Your task to perform on an android device: Is it going to rain this weekend? Image 0: 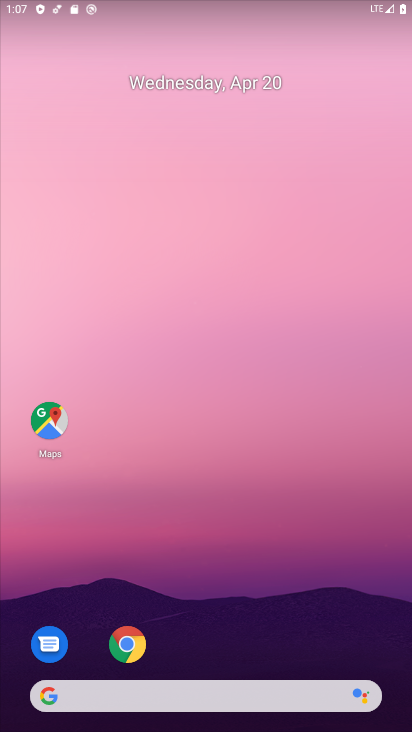
Step 0: drag from (247, 634) to (220, 103)
Your task to perform on an android device: Is it going to rain this weekend? Image 1: 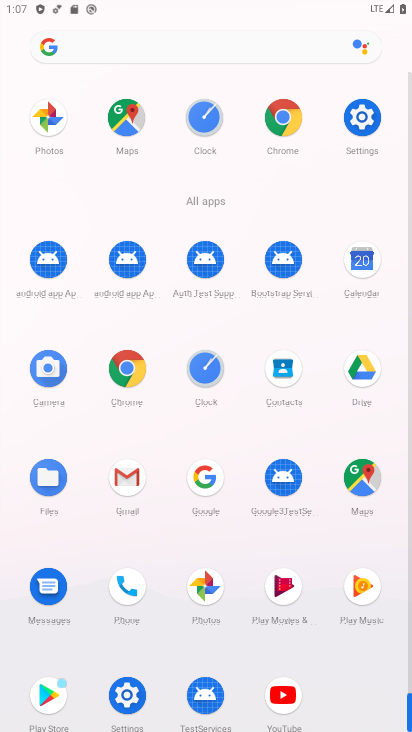
Step 1: click (139, 375)
Your task to perform on an android device: Is it going to rain this weekend? Image 2: 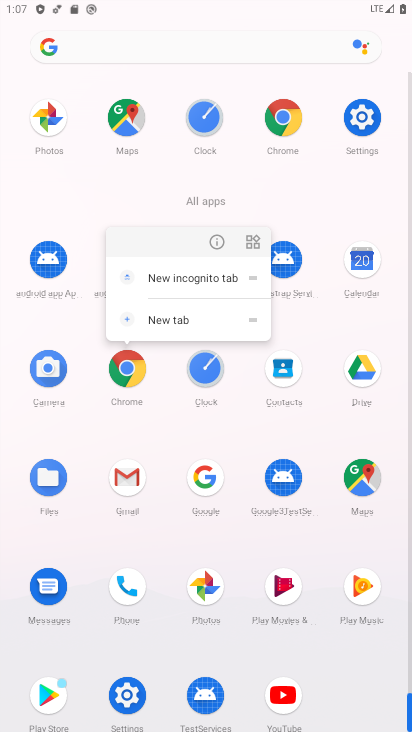
Step 2: click (128, 378)
Your task to perform on an android device: Is it going to rain this weekend? Image 3: 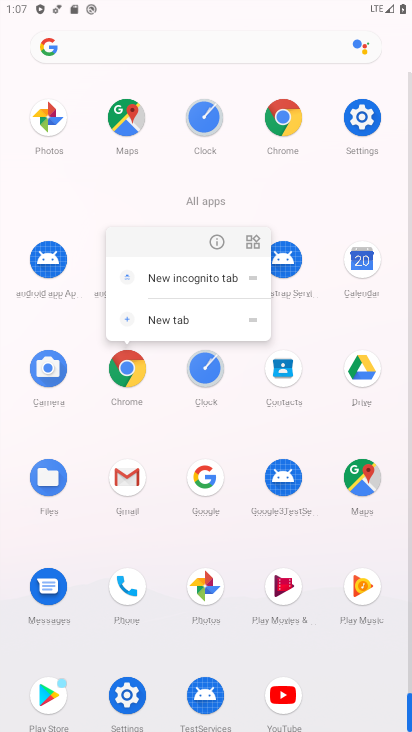
Step 3: click (128, 378)
Your task to perform on an android device: Is it going to rain this weekend? Image 4: 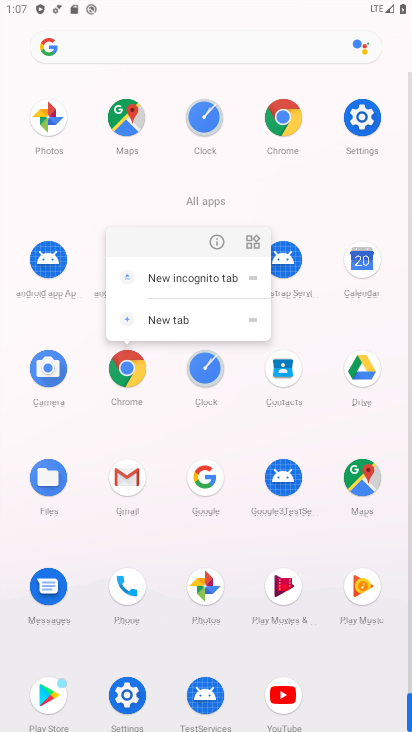
Step 4: click (128, 378)
Your task to perform on an android device: Is it going to rain this weekend? Image 5: 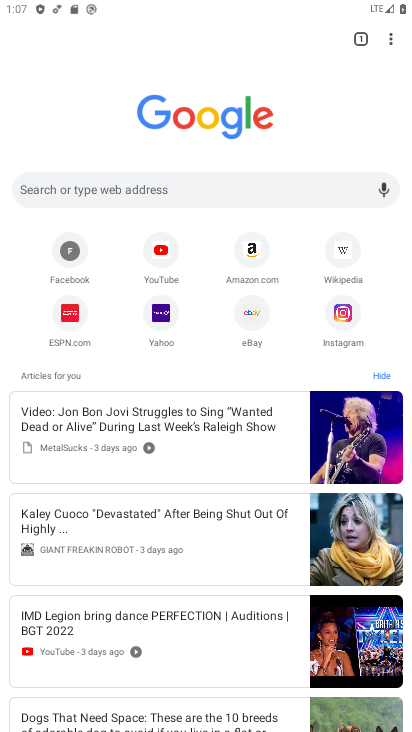
Step 5: drag from (267, 103) to (256, 624)
Your task to perform on an android device: Is it going to rain this weekend? Image 6: 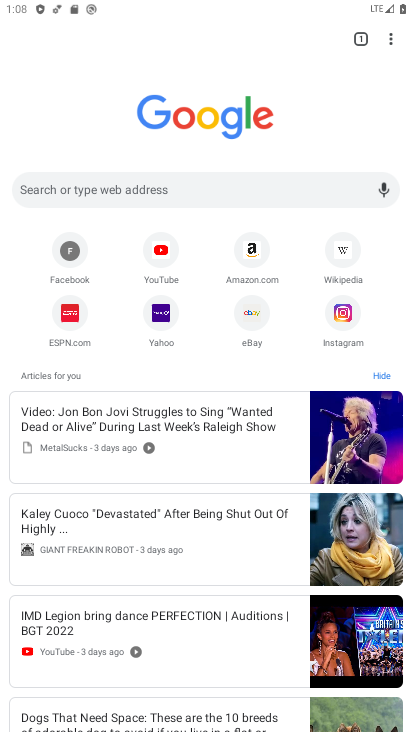
Step 6: drag from (227, 173) to (184, 627)
Your task to perform on an android device: Is it going to rain this weekend? Image 7: 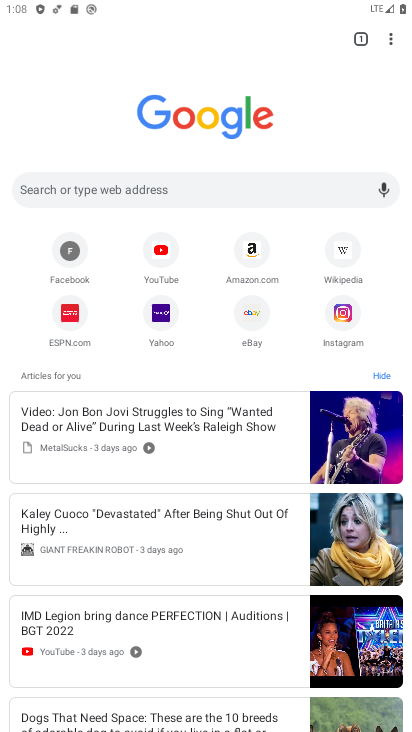
Step 7: drag from (183, 639) to (162, 175)
Your task to perform on an android device: Is it going to rain this weekend? Image 8: 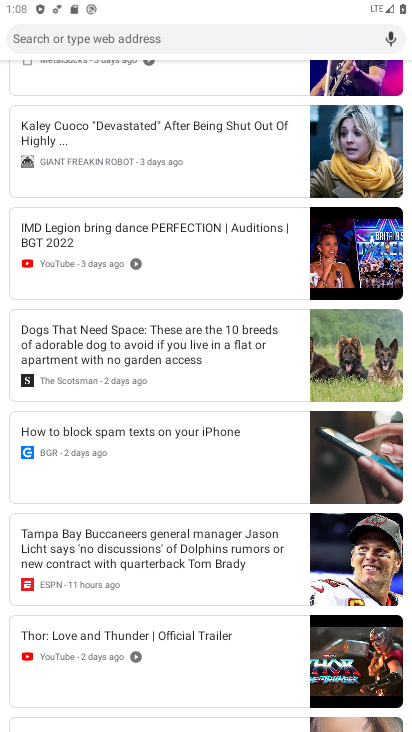
Step 8: drag from (150, 91) to (129, 669)
Your task to perform on an android device: Is it going to rain this weekend? Image 9: 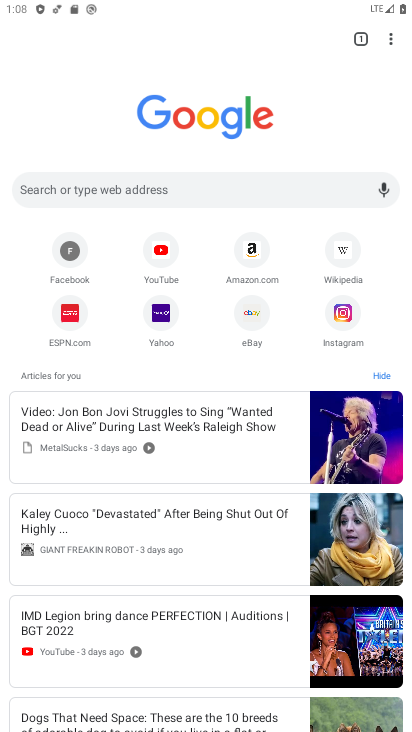
Step 9: click (135, 201)
Your task to perform on an android device: Is it going to rain this weekend? Image 10: 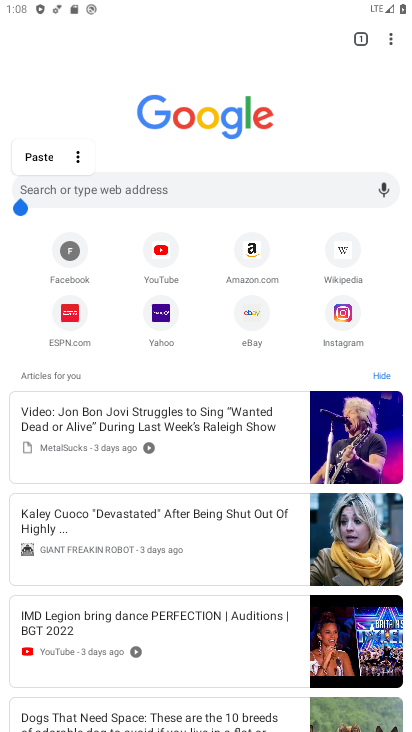
Step 10: click (132, 191)
Your task to perform on an android device: Is it going to rain this weekend? Image 11: 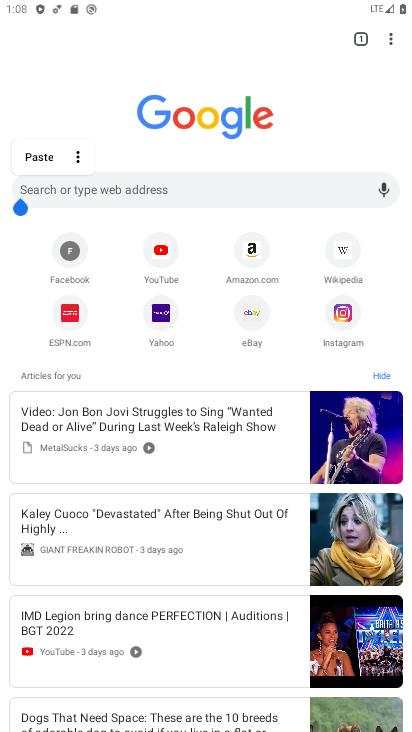
Step 11: click (134, 170)
Your task to perform on an android device: Is it going to rain this weekend? Image 12: 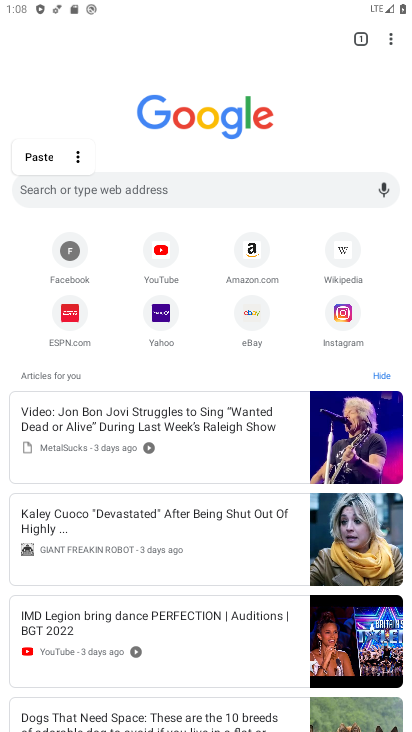
Step 12: click (203, 200)
Your task to perform on an android device: Is it going to rain this weekend? Image 13: 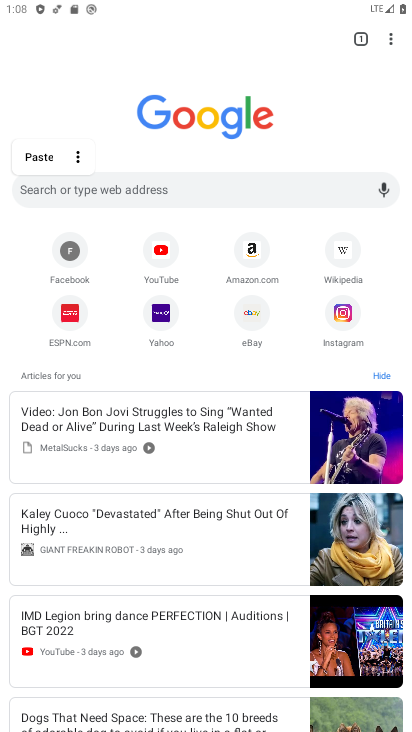
Step 13: click (211, 185)
Your task to perform on an android device: Is it going to rain this weekend? Image 14: 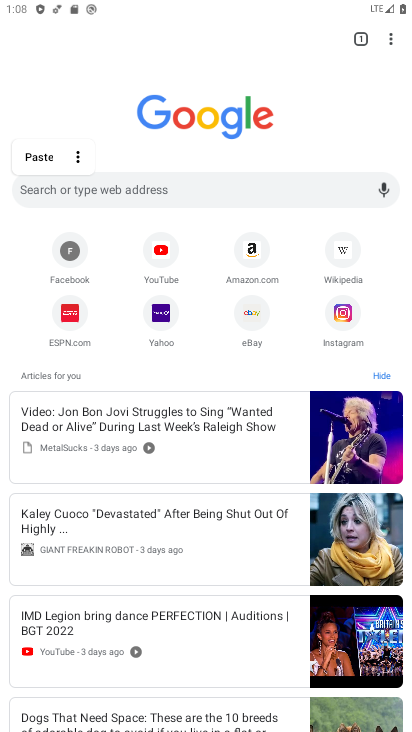
Step 14: click (205, 195)
Your task to perform on an android device: Is it going to rain this weekend? Image 15: 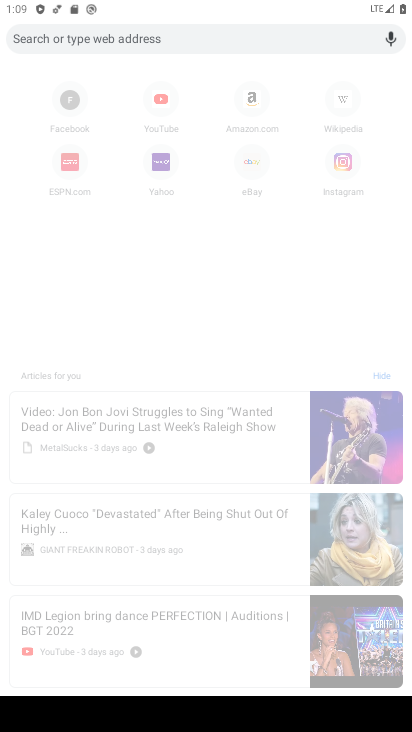
Step 15: type "rain this weekend"
Your task to perform on an android device: Is it going to rain this weekend? Image 16: 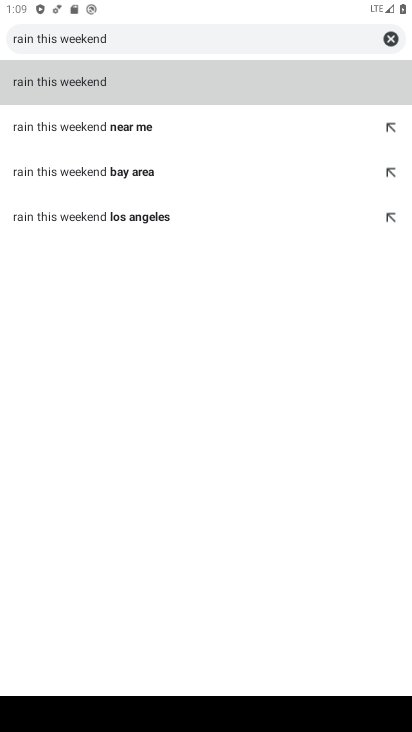
Step 16: click (185, 80)
Your task to perform on an android device: Is it going to rain this weekend? Image 17: 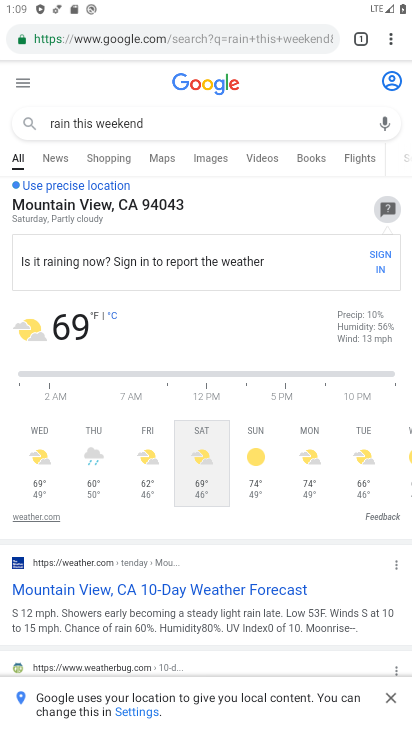
Step 17: task complete